Your task to perform on an android device: open the mobile data screen to see how much data has been used Image 0: 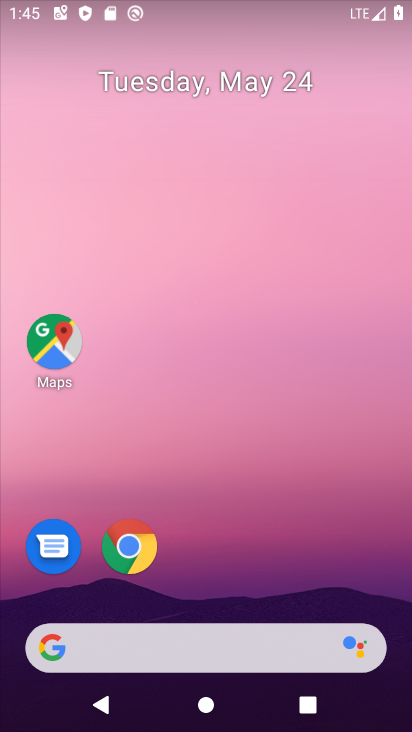
Step 0: drag from (240, 331) to (253, 238)
Your task to perform on an android device: open the mobile data screen to see how much data has been used Image 1: 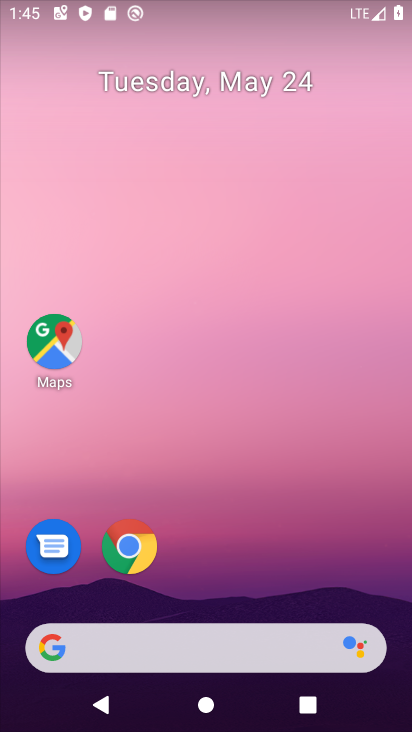
Step 1: drag from (190, 590) to (318, 93)
Your task to perform on an android device: open the mobile data screen to see how much data has been used Image 2: 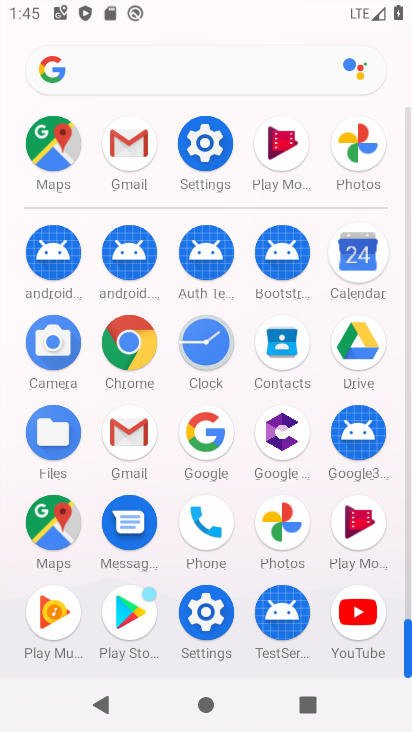
Step 2: click (208, 135)
Your task to perform on an android device: open the mobile data screen to see how much data has been used Image 3: 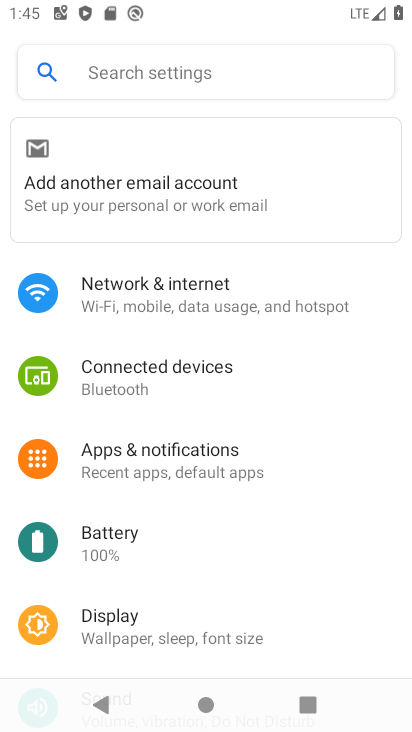
Step 3: click (165, 313)
Your task to perform on an android device: open the mobile data screen to see how much data has been used Image 4: 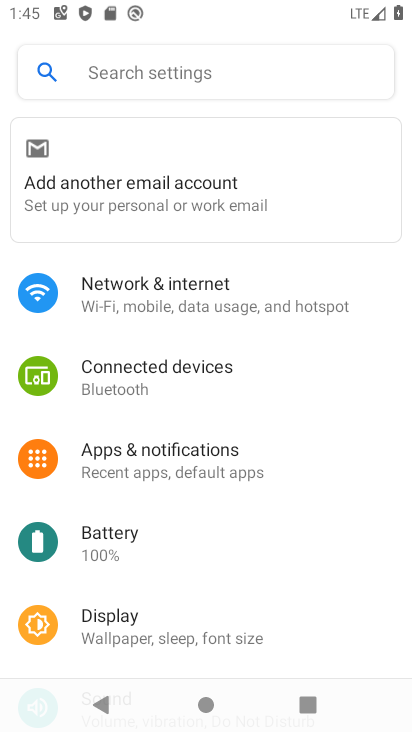
Step 4: click (165, 313)
Your task to perform on an android device: open the mobile data screen to see how much data has been used Image 5: 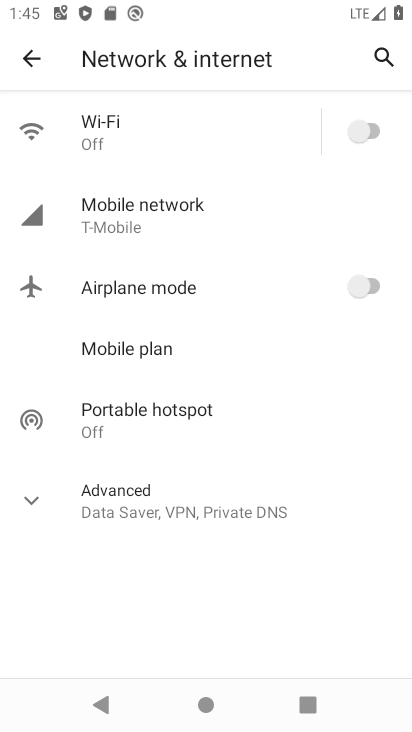
Step 5: click (207, 234)
Your task to perform on an android device: open the mobile data screen to see how much data has been used Image 6: 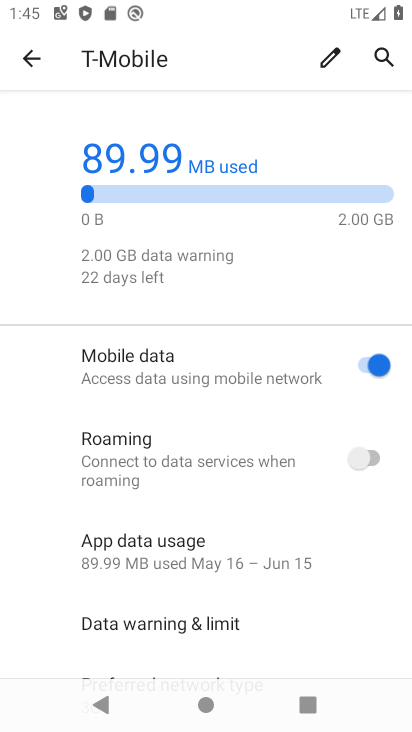
Step 6: task complete